Your task to perform on an android device: turn vacation reply on in the gmail app Image 0: 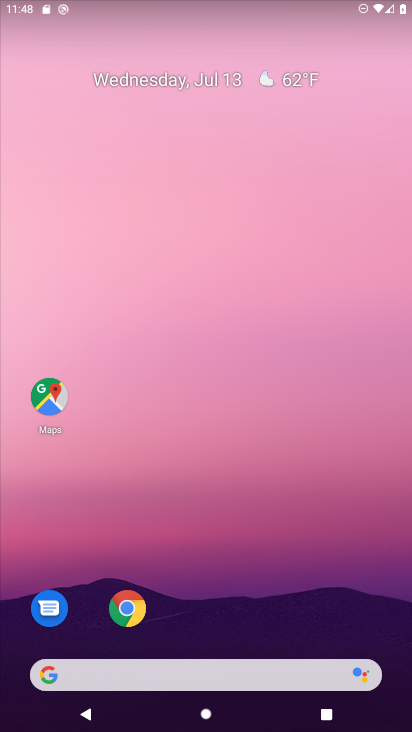
Step 0: drag from (239, 724) to (214, 103)
Your task to perform on an android device: turn vacation reply on in the gmail app Image 1: 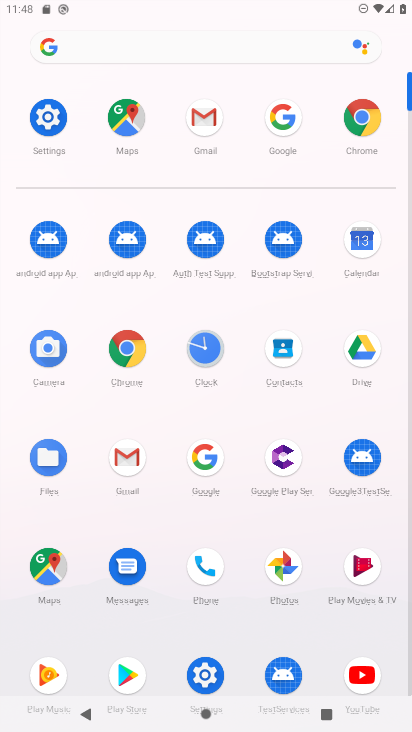
Step 1: click (124, 456)
Your task to perform on an android device: turn vacation reply on in the gmail app Image 2: 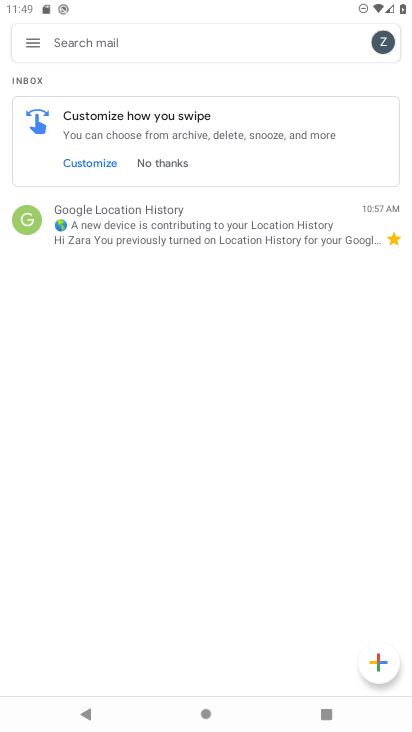
Step 2: click (30, 45)
Your task to perform on an android device: turn vacation reply on in the gmail app Image 3: 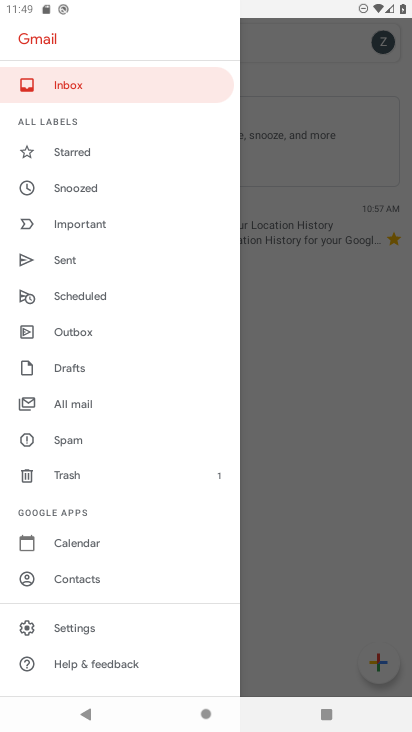
Step 3: click (88, 625)
Your task to perform on an android device: turn vacation reply on in the gmail app Image 4: 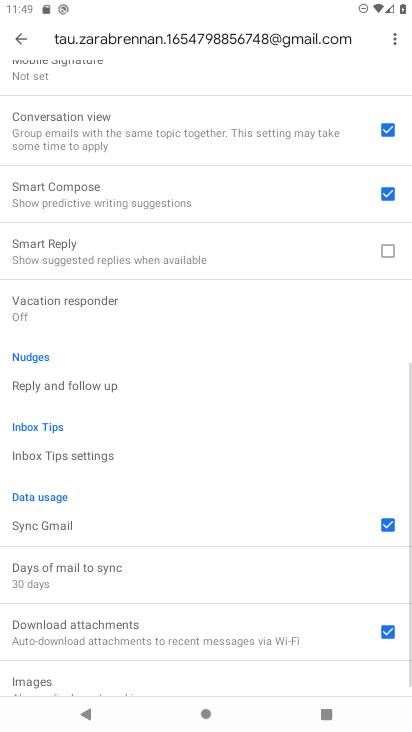
Step 4: drag from (116, 644) to (114, 352)
Your task to perform on an android device: turn vacation reply on in the gmail app Image 5: 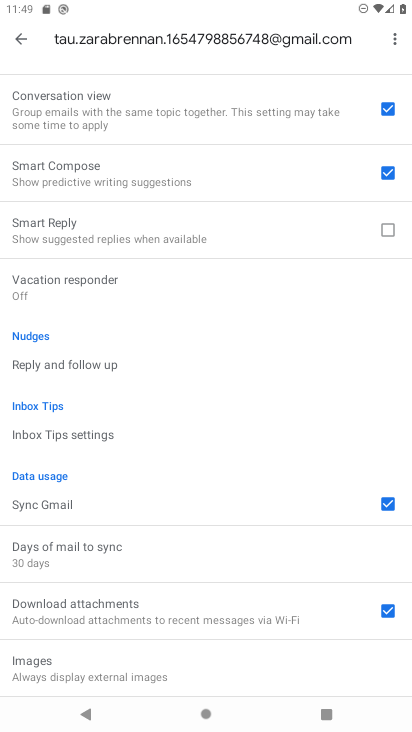
Step 5: click (57, 281)
Your task to perform on an android device: turn vacation reply on in the gmail app Image 6: 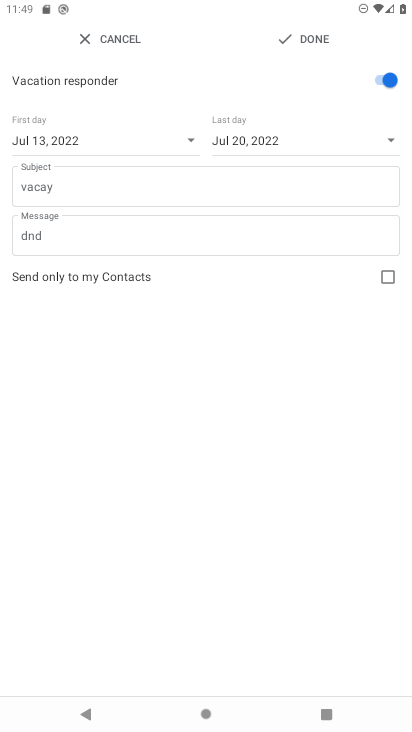
Step 6: task complete